Your task to perform on an android device: Go to CNN.com Image 0: 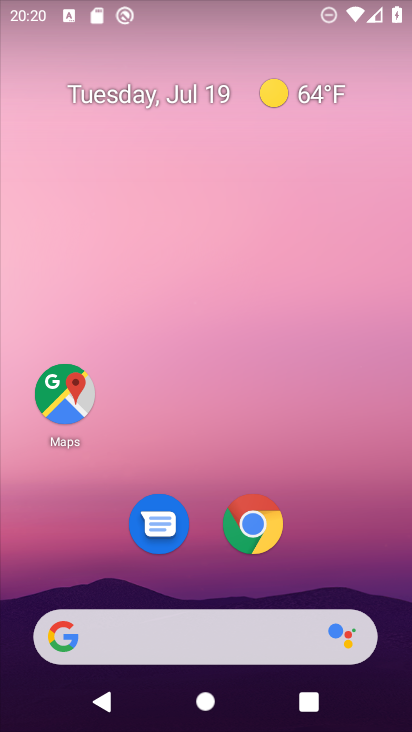
Step 0: click (254, 642)
Your task to perform on an android device: Go to CNN.com Image 1: 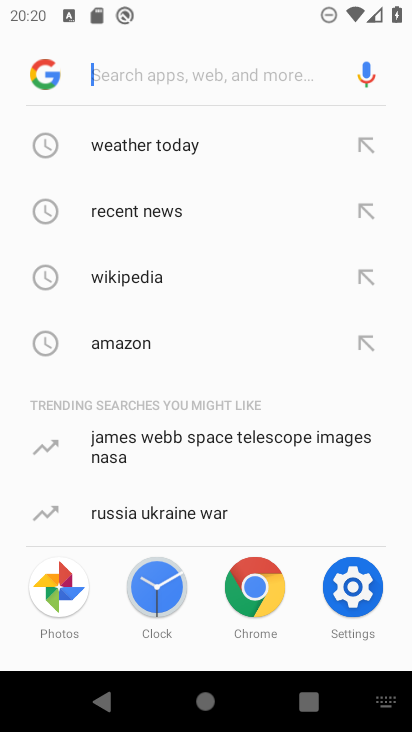
Step 1: type "cnn.com"
Your task to perform on an android device: Go to CNN.com Image 2: 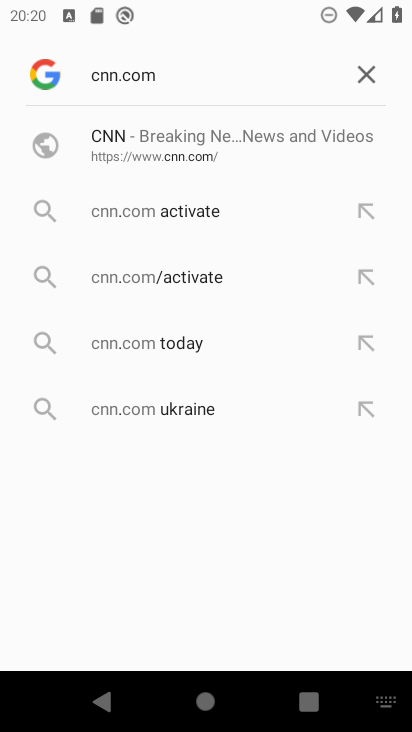
Step 2: click (207, 156)
Your task to perform on an android device: Go to CNN.com Image 3: 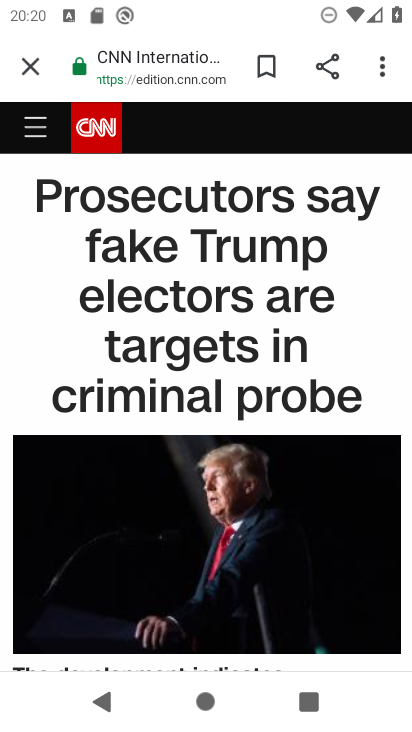
Step 3: task complete